Your task to perform on an android device: Open CNN.com Image 0: 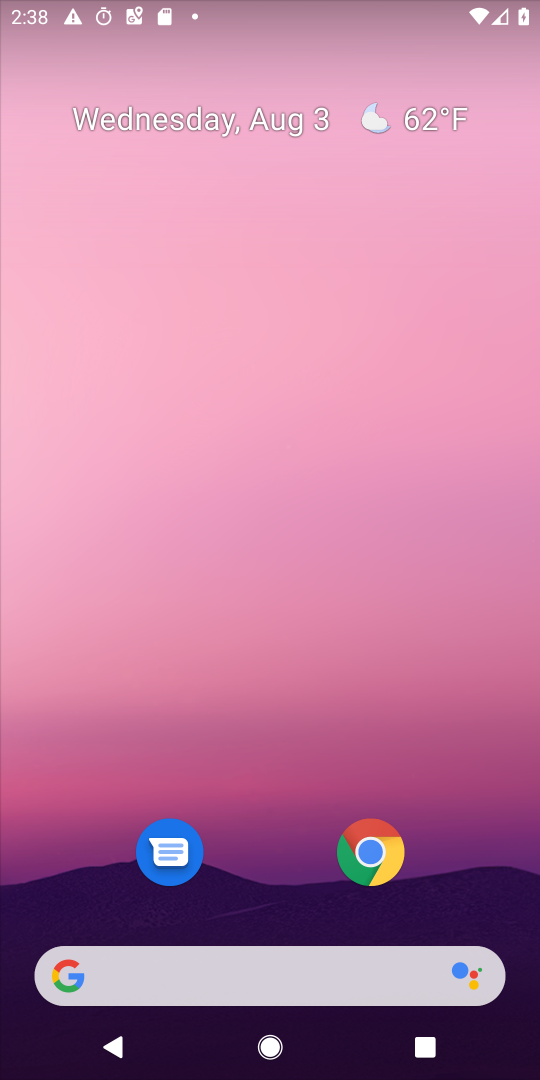
Step 0: drag from (497, 880) to (233, 0)
Your task to perform on an android device: Open CNN.com Image 1: 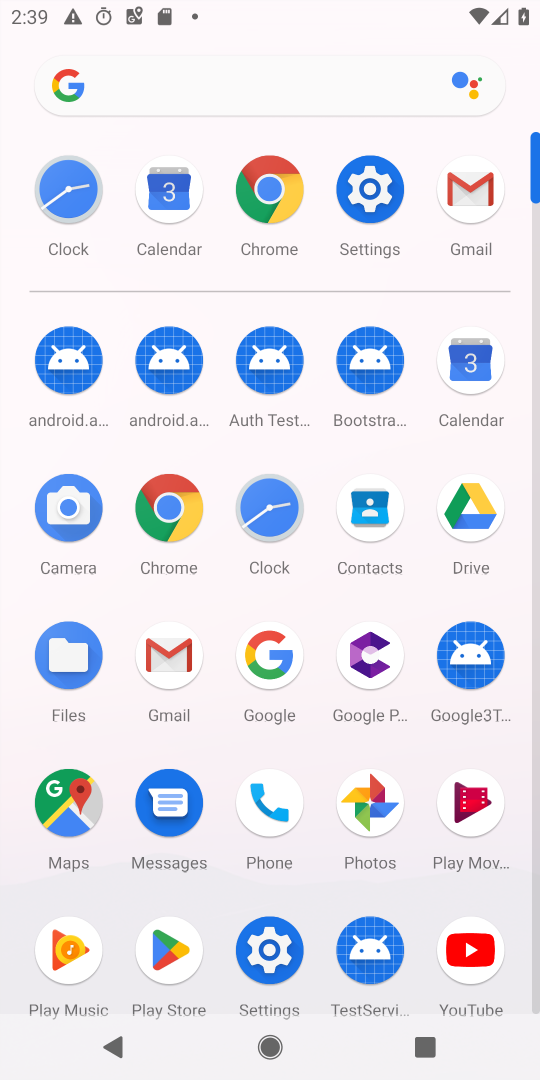
Step 1: click (256, 676)
Your task to perform on an android device: Open CNN.com Image 2: 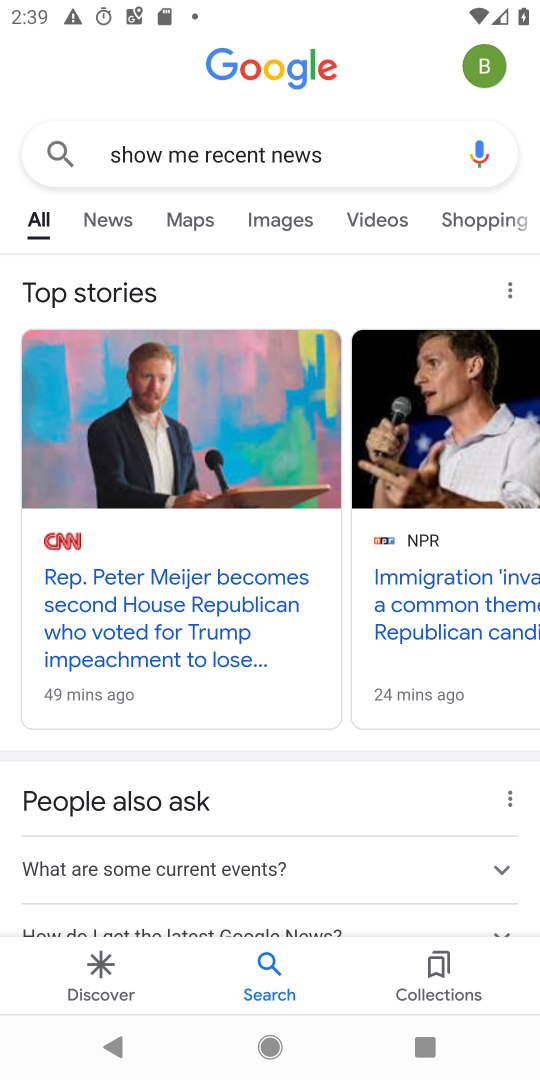
Step 2: press back button
Your task to perform on an android device: Open CNN.com Image 3: 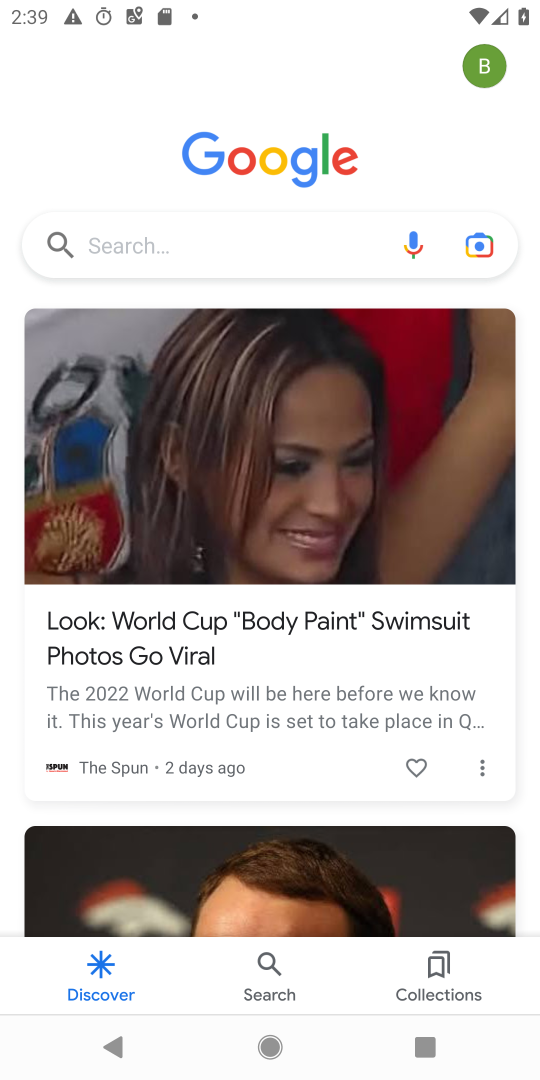
Step 3: click (128, 262)
Your task to perform on an android device: Open CNN.com Image 4: 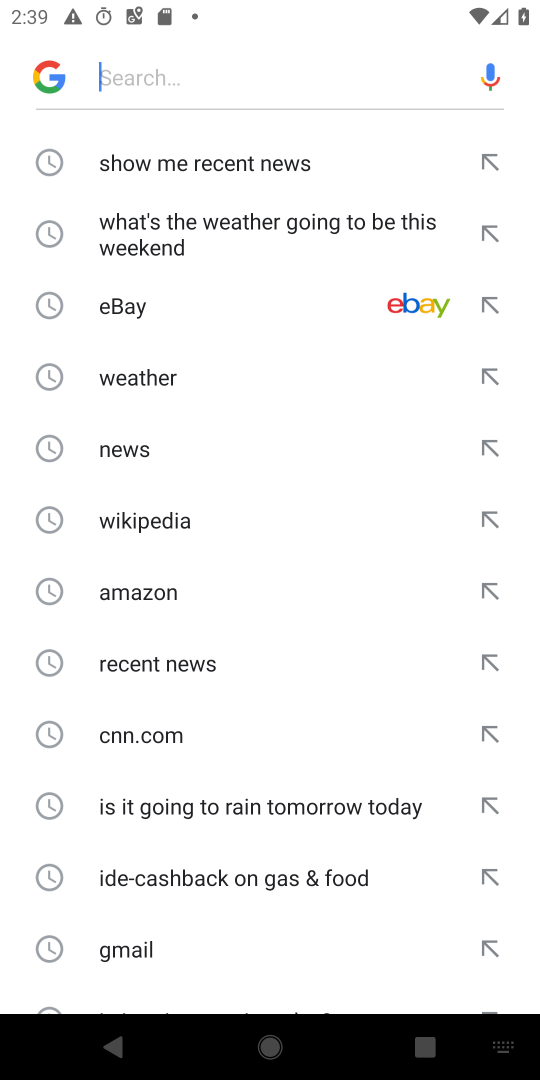
Step 4: type "CNN.com"
Your task to perform on an android device: Open CNN.com Image 5: 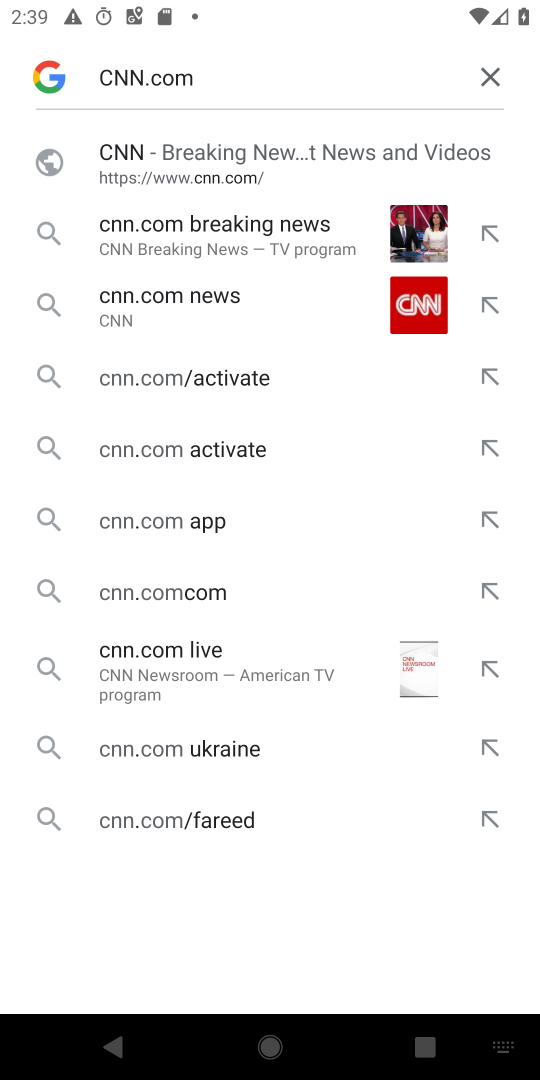
Step 5: click (170, 150)
Your task to perform on an android device: Open CNN.com Image 6: 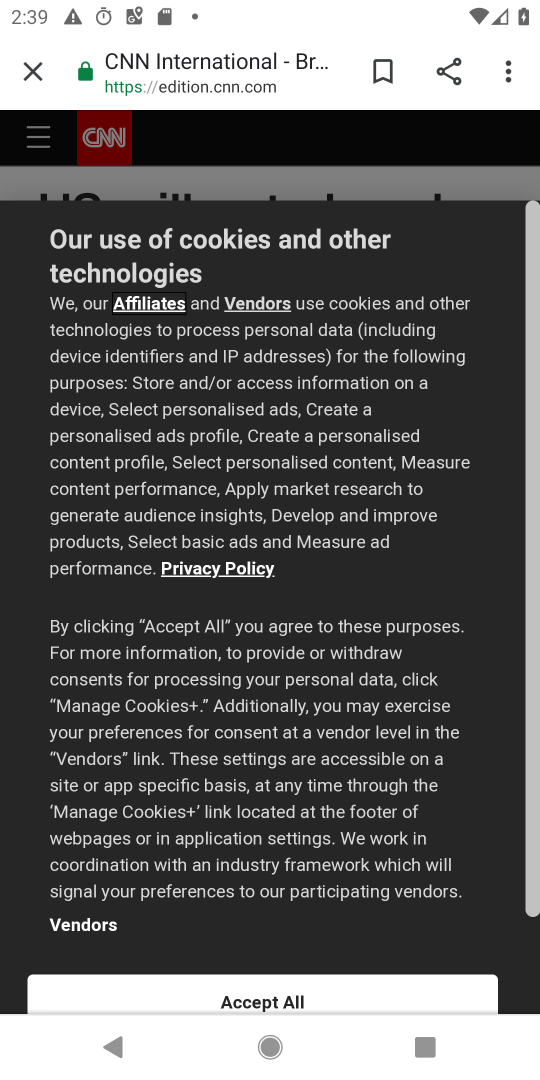
Step 6: task complete